Your task to perform on an android device: change your default location settings in chrome Image 0: 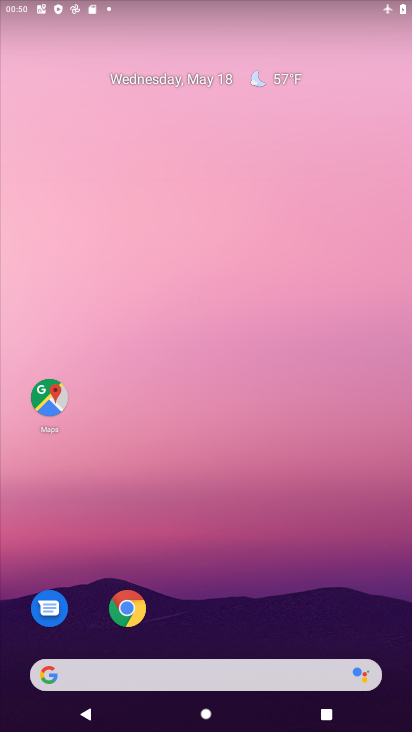
Step 0: click (131, 609)
Your task to perform on an android device: change your default location settings in chrome Image 1: 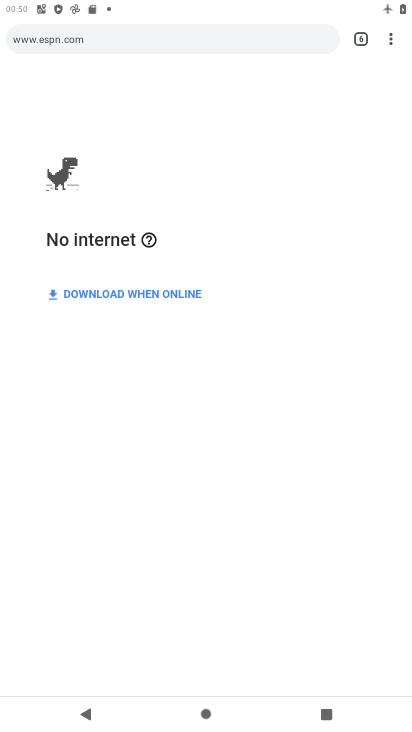
Step 1: click (389, 38)
Your task to perform on an android device: change your default location settings in chrome Image 2: 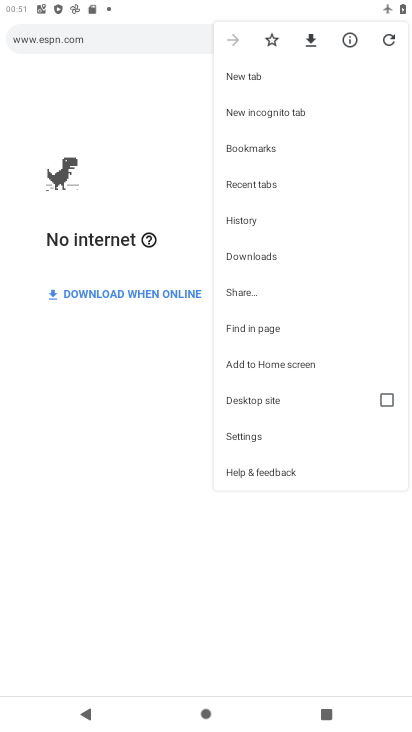
Step 2: click (167, 492)
Your task to perform on an android device: change your default location settings in chrome Image 3: 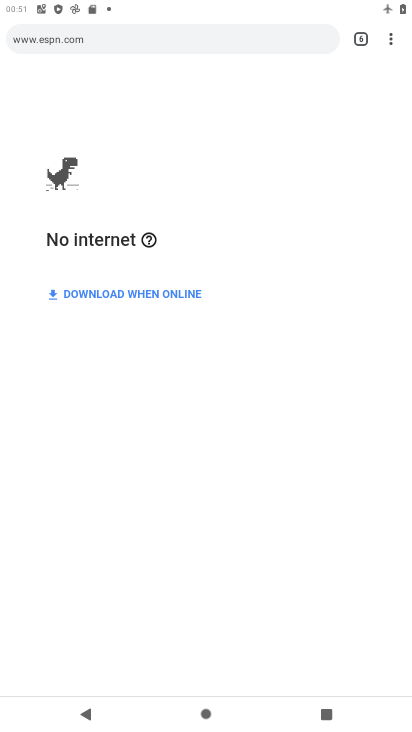
Step 3: task complete